Your task to perform on an android device: set default search engine in the chrome app Image 0: 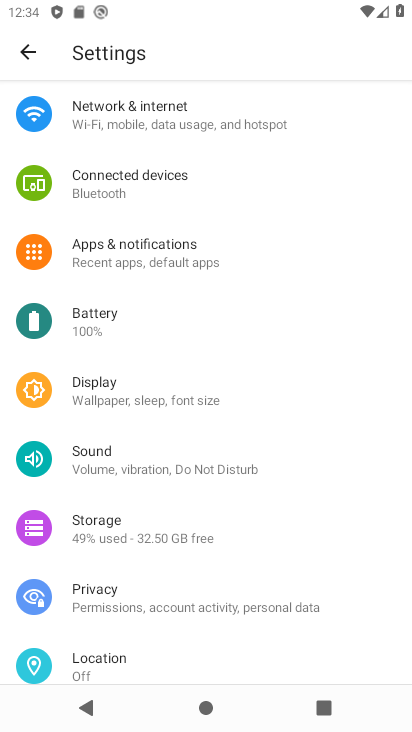
Step 0: press home button
Your task to perform on an android device: set default search engine in the chrome app Image 1: 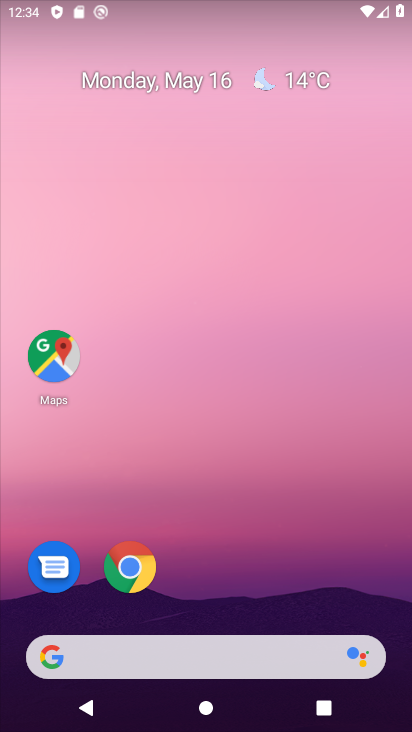
Step 1: click (122, 576)
Your task to perform on an android device: set default search engine in the chrome app Image 2: 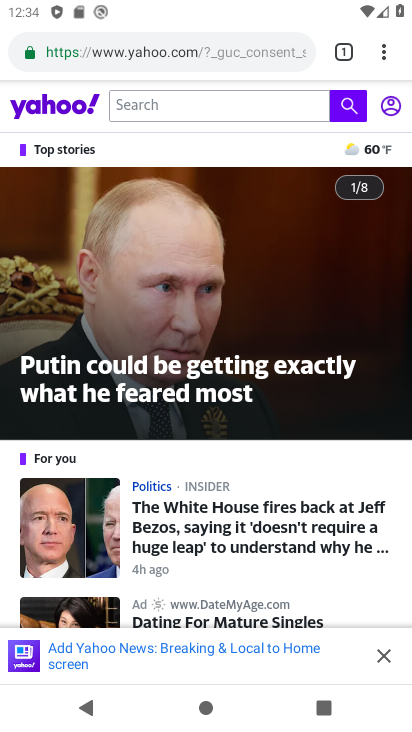
Step 2: click (386, 51)
Your task to perform on an android device: set default search engine in the chrome app Image 3: 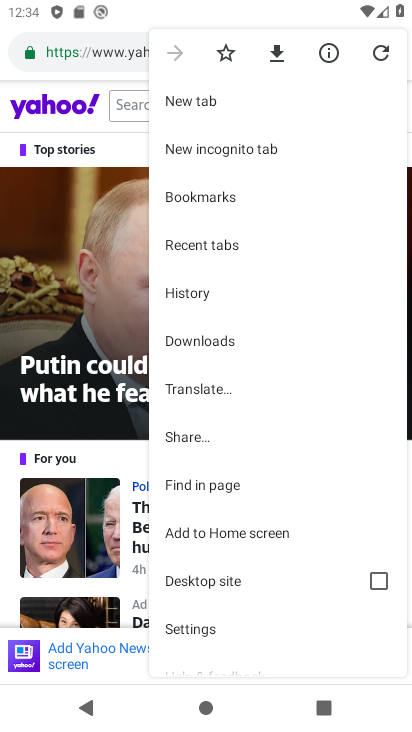
Step 3: click (199, 632)
Your task to perform on an android device: set default search engine in the chrome app Image 4: 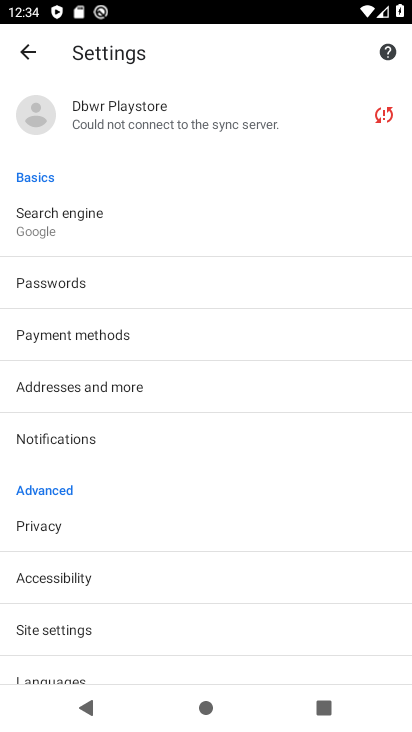
Step 4: click (94, 112)
Your task to perform on an android device: set default search engine in the chrome app Image 5: 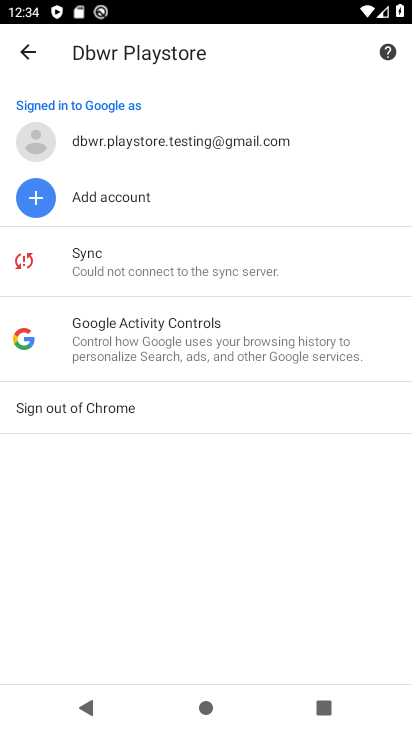
Step 5: click (24, 58)
Your task to perform on an android device: set default search engine in the chrome app Image 6: 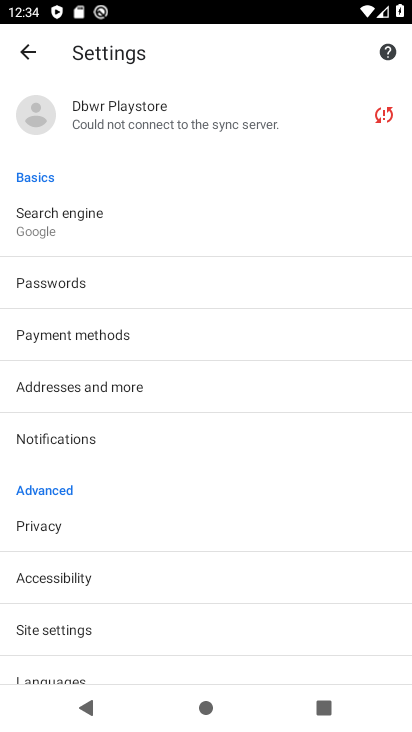
Step 6: click (75, 205)
Your task to perform on an android device: set default search engine in the chrome app Image 7: 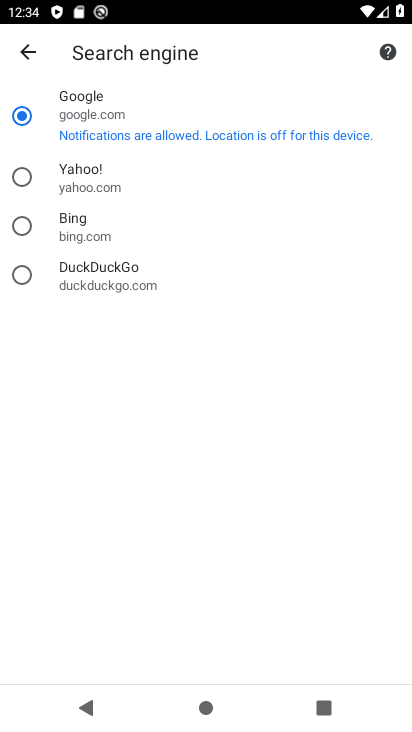
Step 7: click (23, 270)
Your task to perform on an android device: set default search engine in the chrome app Image 8: 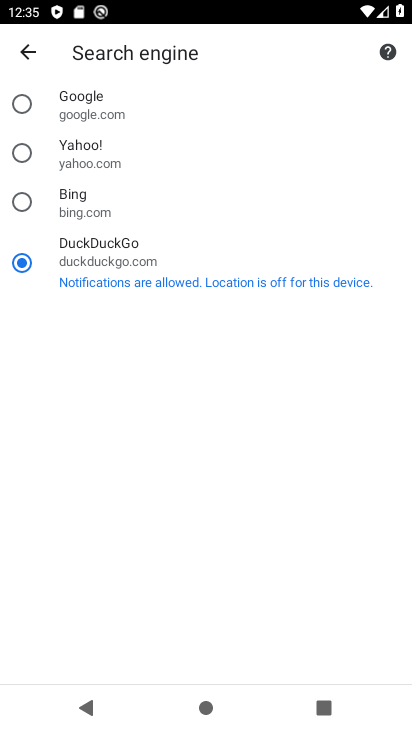
Step 8: click (23, 152)
Your task to perform on an android device: set default search engine in the chrome app Image 9: 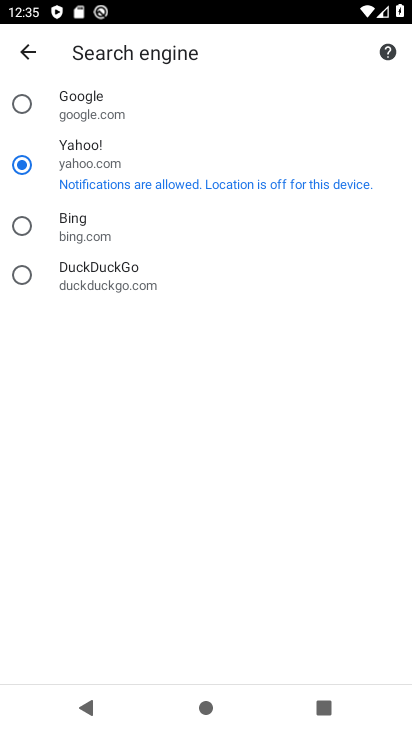
Step 9: task complete